Your task to perform on an android device: install app "Messages" Image 0: 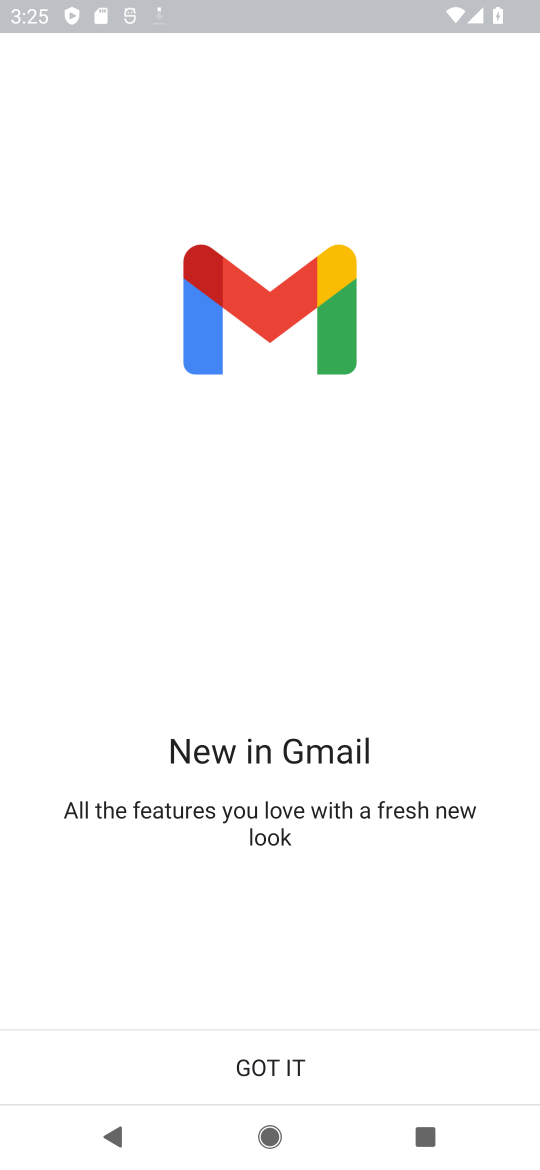
Step 0: press home button
Your task to perform on an android device: install app "Messages" Image 1: 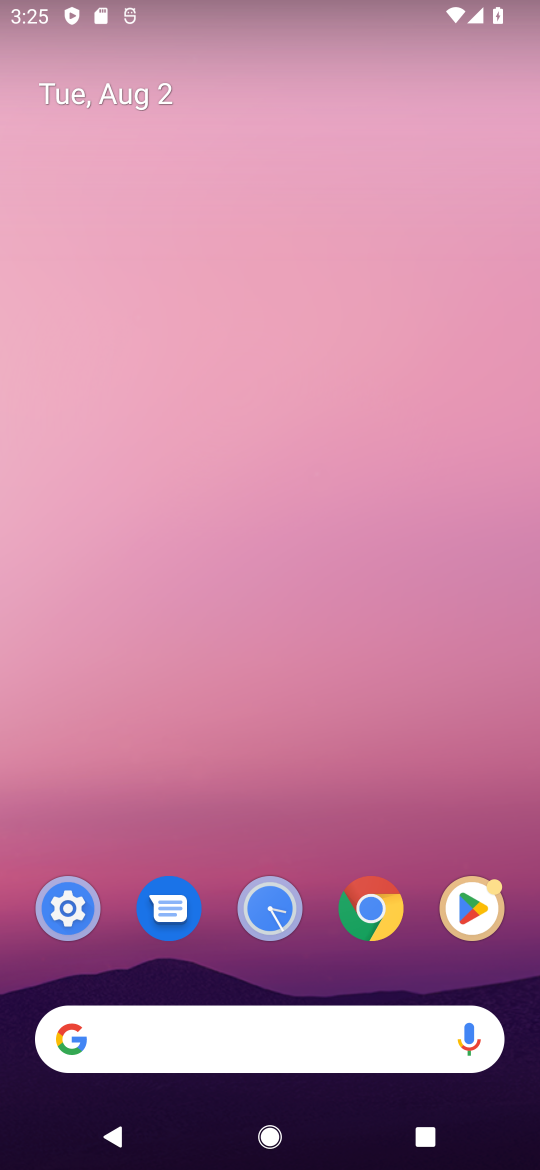
Step 1: click (472, 901)
Your task to perform on an android device: install app "Messages" Image 2: 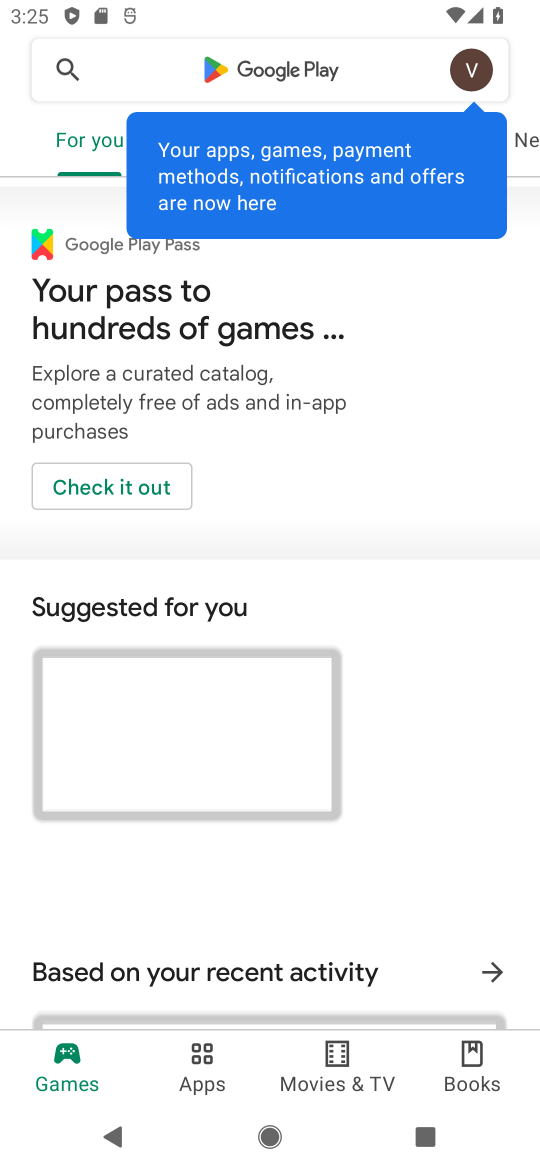
Step 2: click (242, 65)
Your task to perform on an android device: install app "Messages" Image 3: 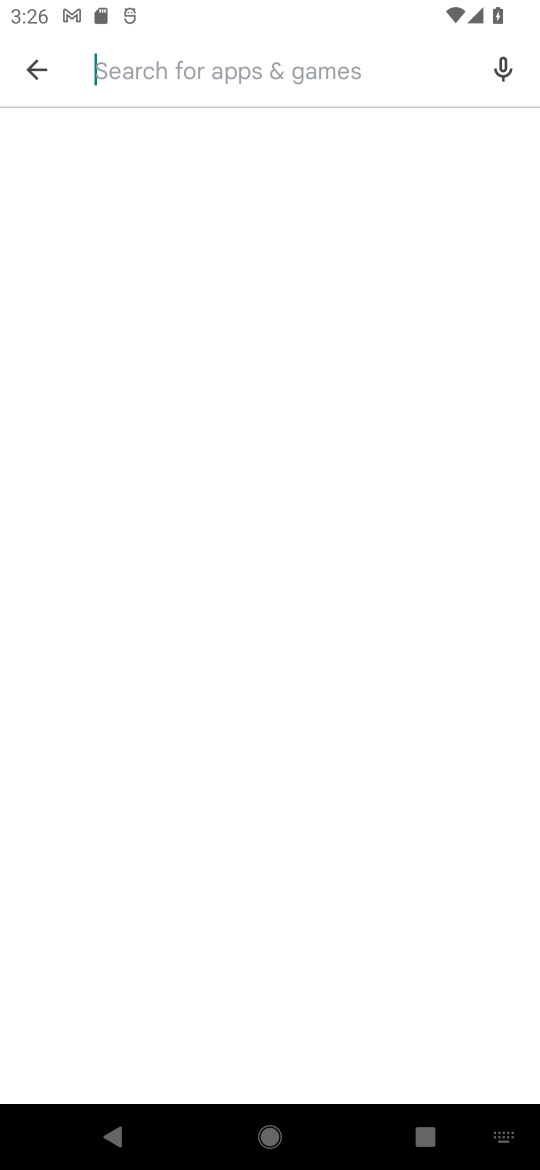
Step 3: type "Messages"
Your task to perform on an android device: install app "Messages" Image 4: 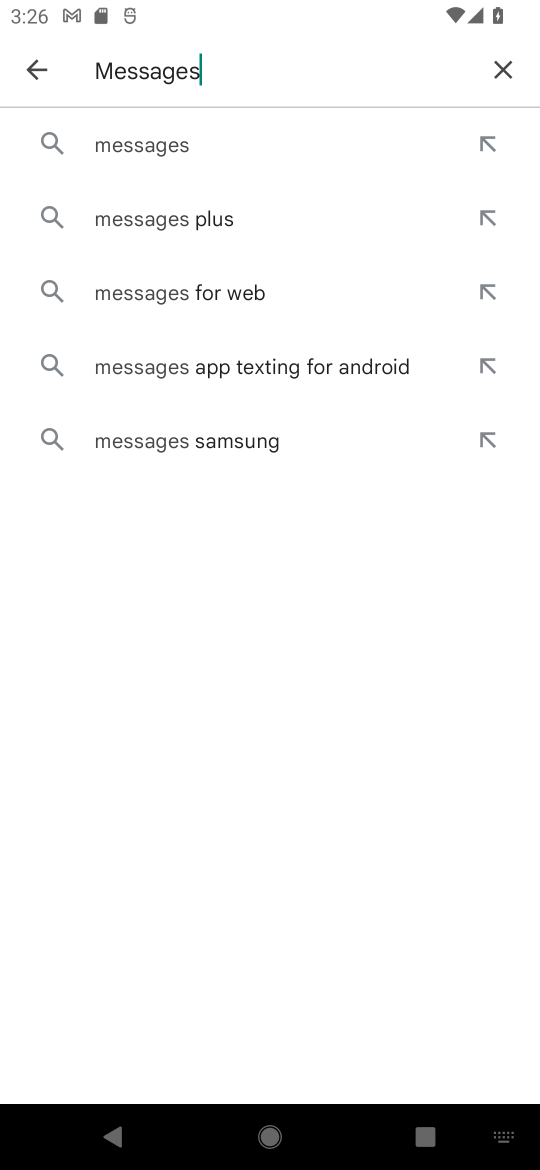
Step 4: click (179, 131)
Your task to perform on an android device: install app "Messages" Image 5: 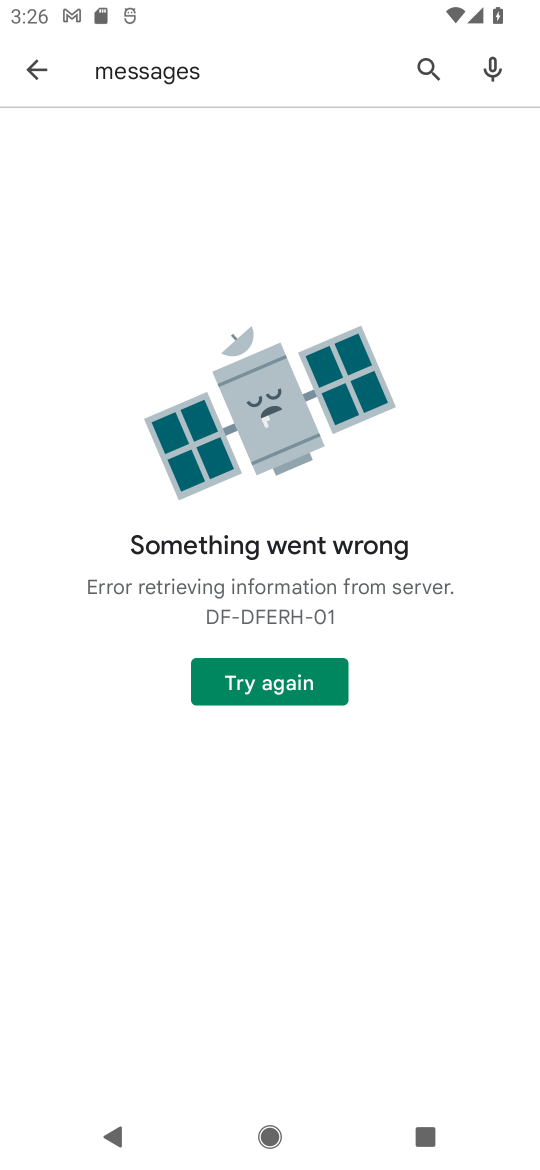
Step 5: click (268, 679)
Your task to perform on an android device: install app "Messages" Image 6: 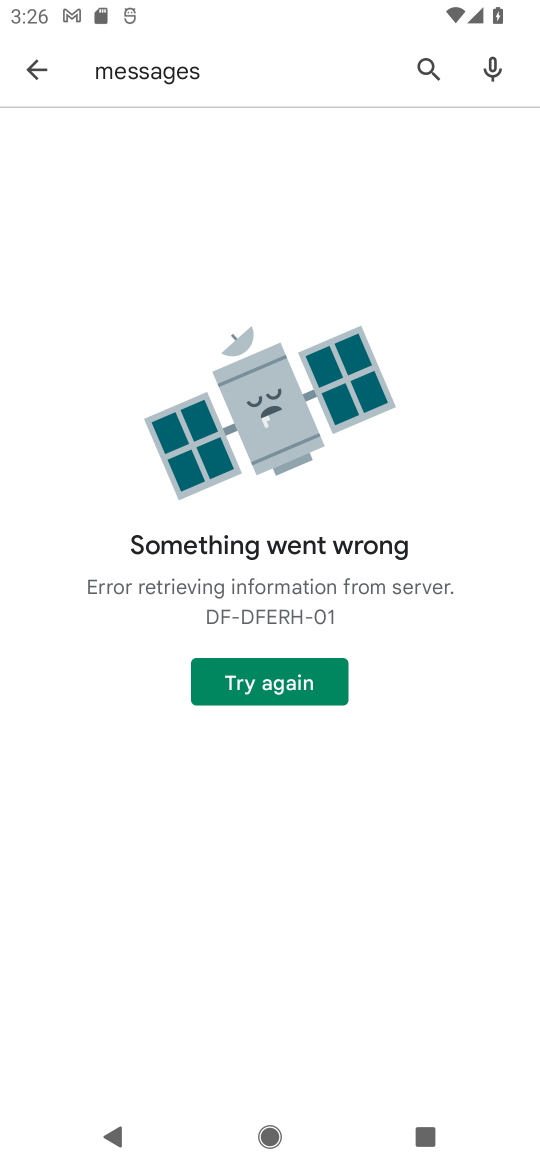
Step 6: click (249, 685)
Your task to perform on an android device: install app "Messages" Image 7: 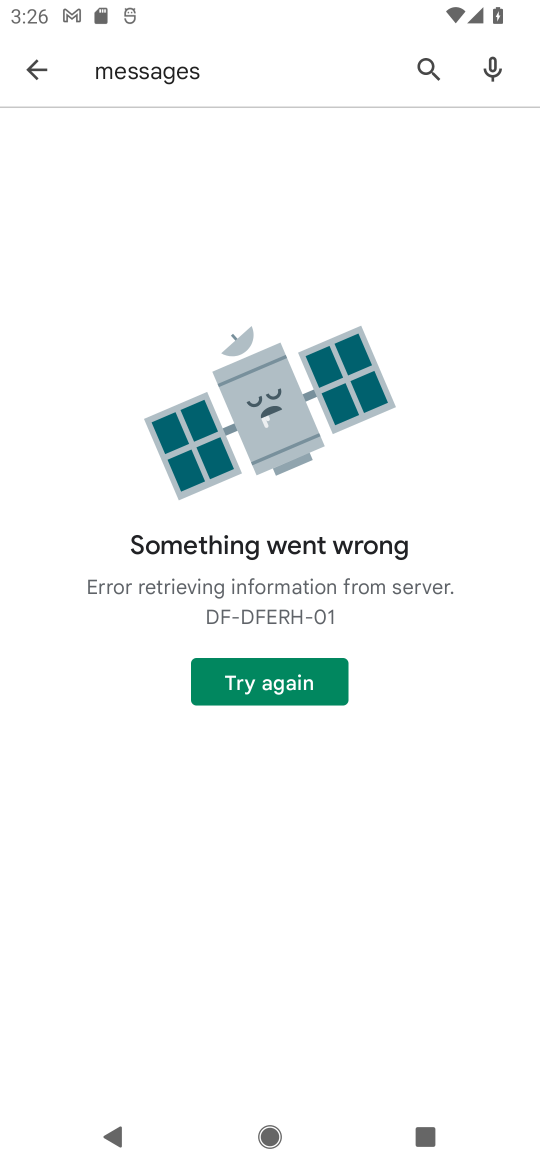
Step 7: click (270, 684)
Your task to perform on an android device: install app "Messages" Image 8: 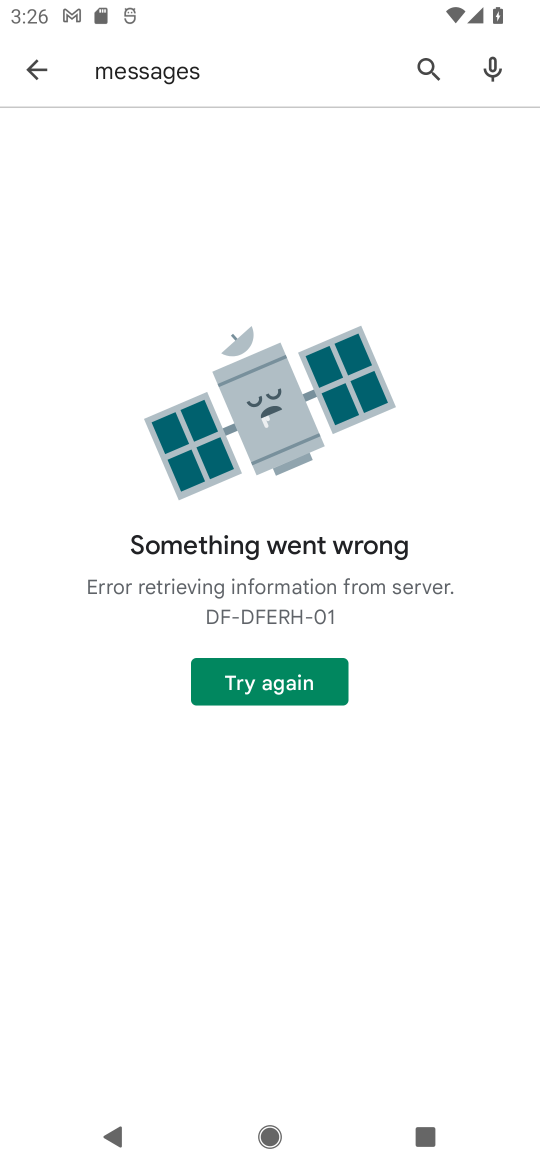
Step 8: click (27, 85)
Your task to perform on an android device: install app "Messages" Image 9: 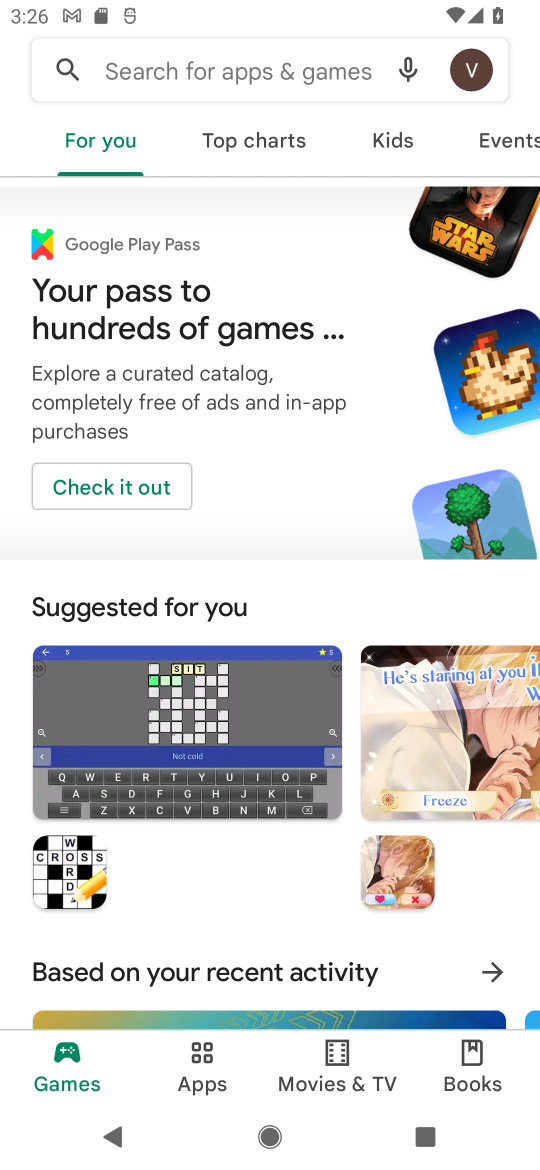
Step 9: task complete